Your task to perform on an android device: Check the news Image 0: 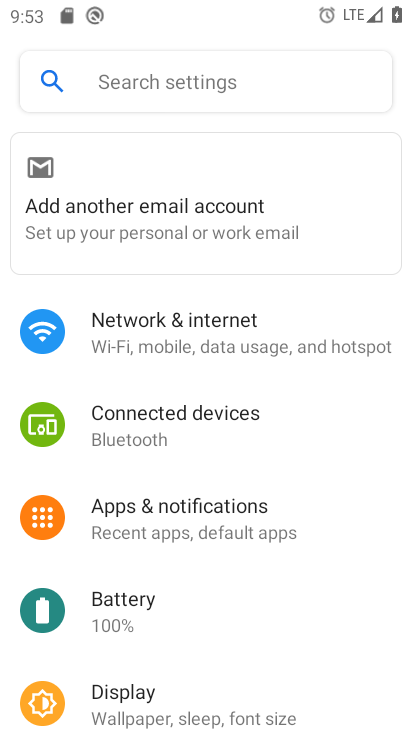
Step 0: press home button
Your task to perform on an android device: Check the news Image 1: 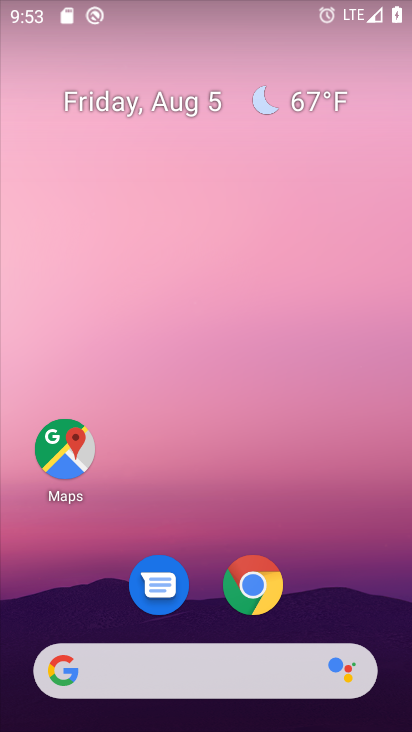
Step 1: click (236, 668)
Your task to perform on an android device: Check the news Image 2: 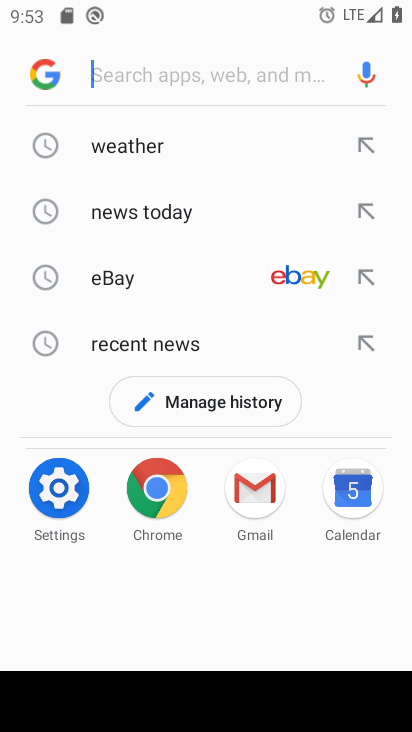
Step 2: click (158, 343)
Your task to perform on an android device: Check the news Image 3: 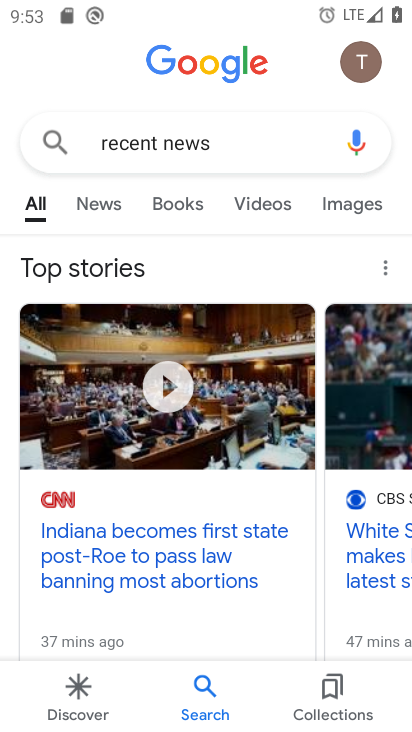
Step 3: click (104, 206)
Your task to perform on an android device: Check the news Image 4: 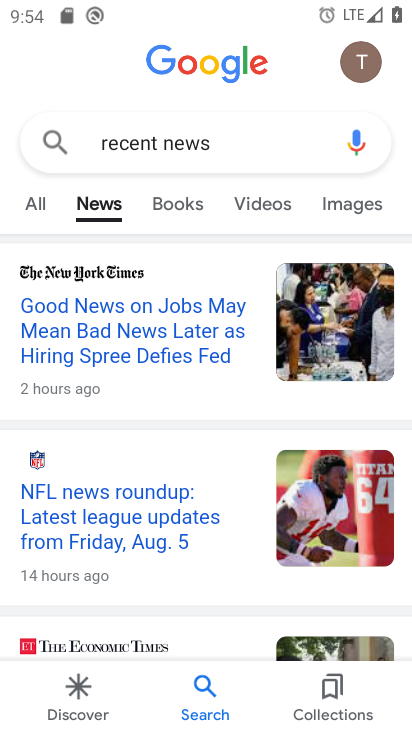
Step 4: task complete